Your task to perform on an android device: Go to wifi settings Image 0: 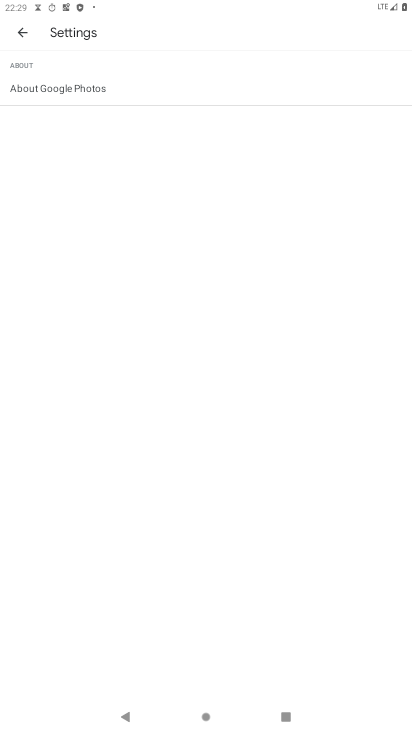
Step 0: press home button
Your task to perform on an android device: Go to wifi settings Image 1: 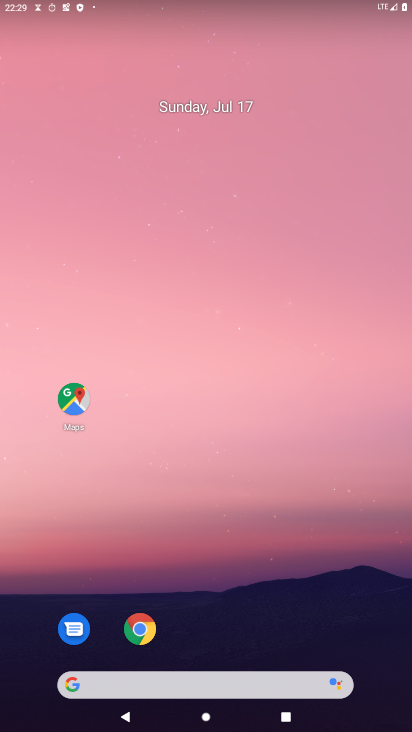
Step 1: drag from (227, 701) to (219, 98)
Your task to perform on an android device: Go to wifi settings Image 2: 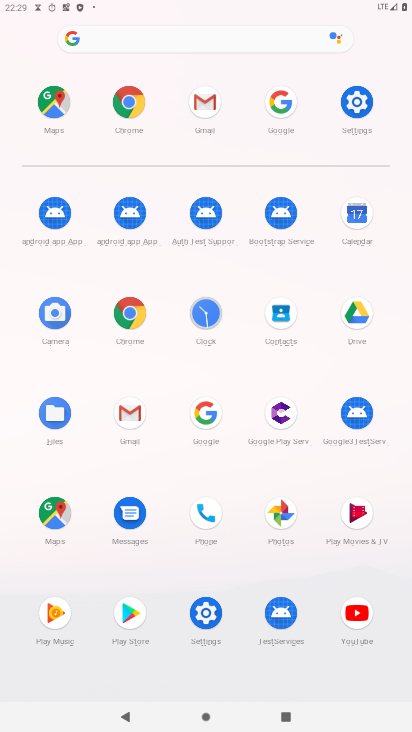
Step 2: click (356, 103)
Your task to perform on an android device: Go to wifi settings Image 3: 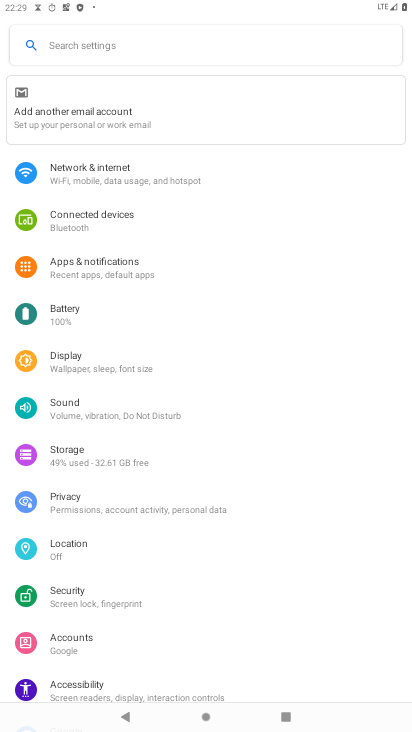
Step 3: click (68, 164)
Your task to perform on an android device: Go to wifi settings Image 4: 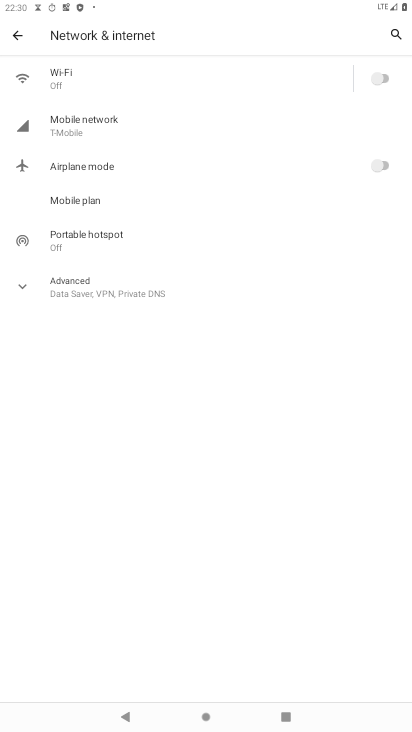
Step 4: click (56, 67)
Your task to perform on an android device: Go to wifi settings Image 5: 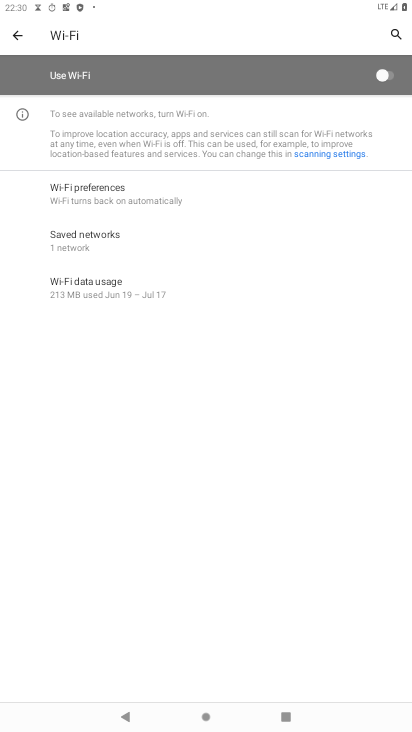
Step 5: task complete